Your task to perform on an android device: Open Yahoo.com Image 0: 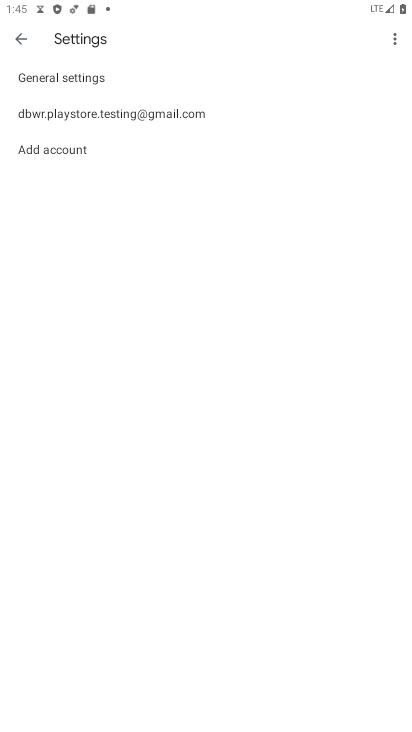
Step 0: drag from (364, 633) to (330, 27)
Your task to perform on an android device: Open Yahoo.com Image 1: 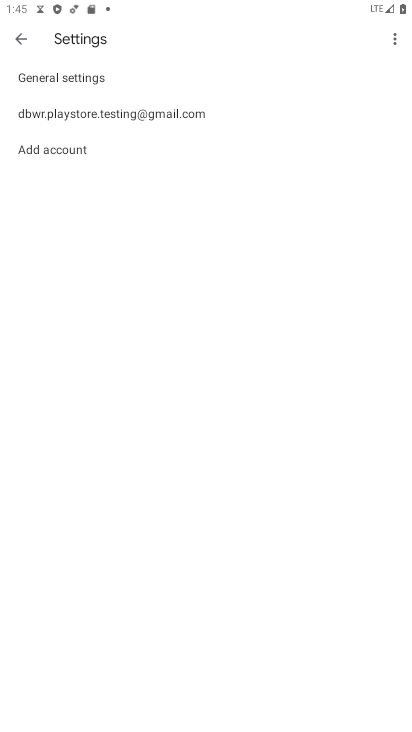
Step 1: press home button
Your task to perform on an android device: Open Yahoo.com Image 2: 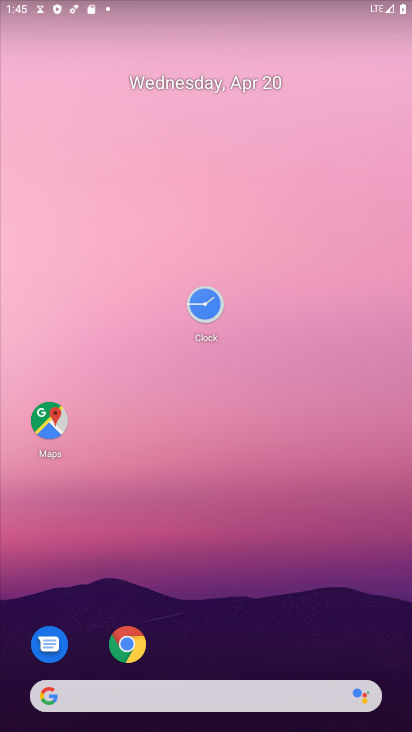
Step 2: drag from (263, 676) to (252, 33)
Your task to perform on an android device: Open Yahoo.com Image 3: 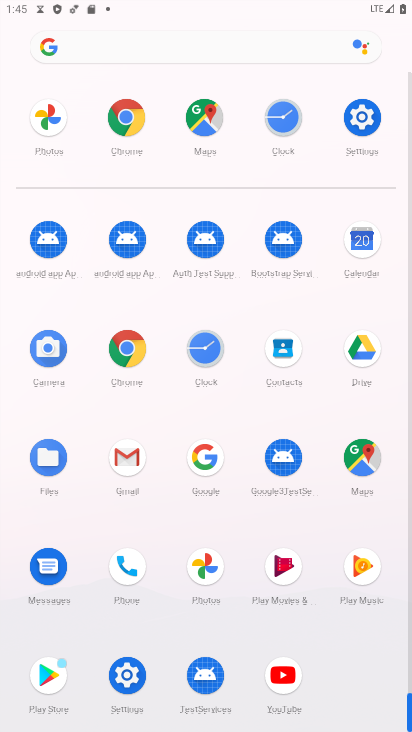
Step 3: click (122, 363)
Your task to perform on an android device: Open Yahoo.com Image 4: 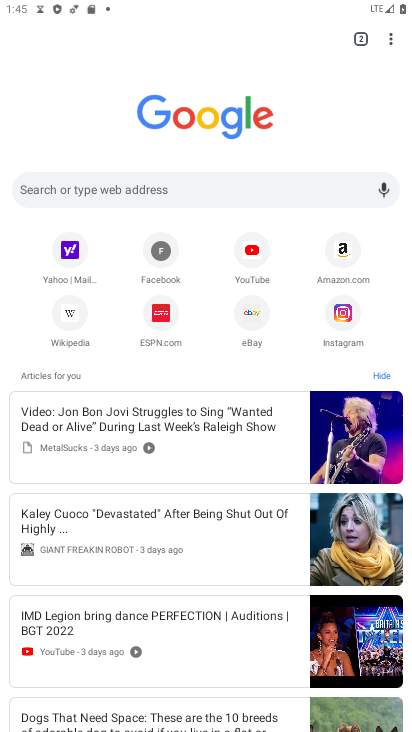
Step 4: click (291, 184)
Your task to perform on an android device: Open Yahoo.com Image 5: 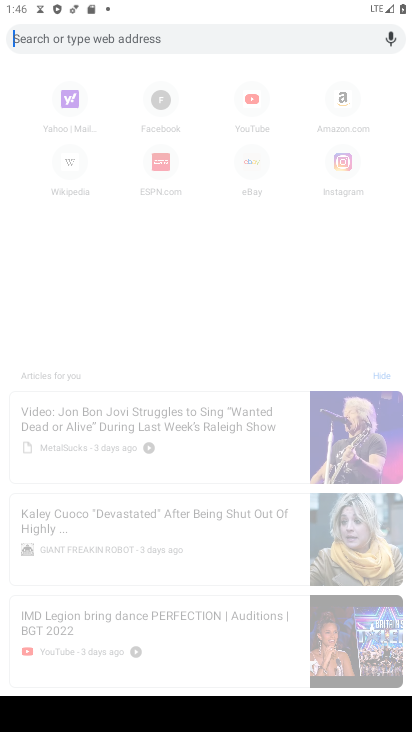
Step 5: press back button
Your task to perform on an android device: Open Yahoo.com Image 6: 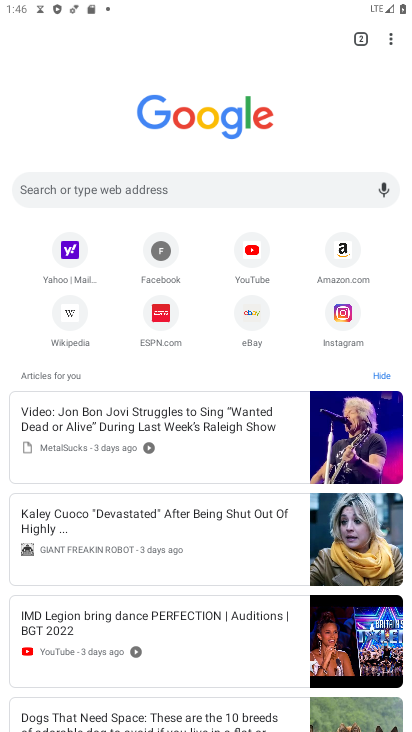
Step 6: click (70, 253)
Your task to perform on an android device: Open Yahoo.com Image 7: 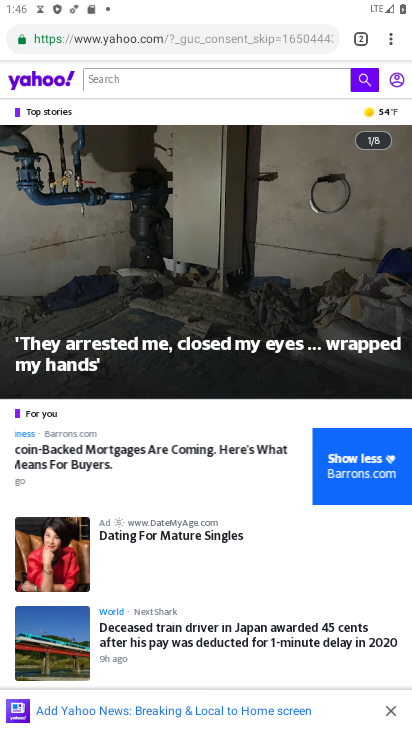
Step 7: task complete